Your task to perform on an android device: What is the recent news? Image 0: 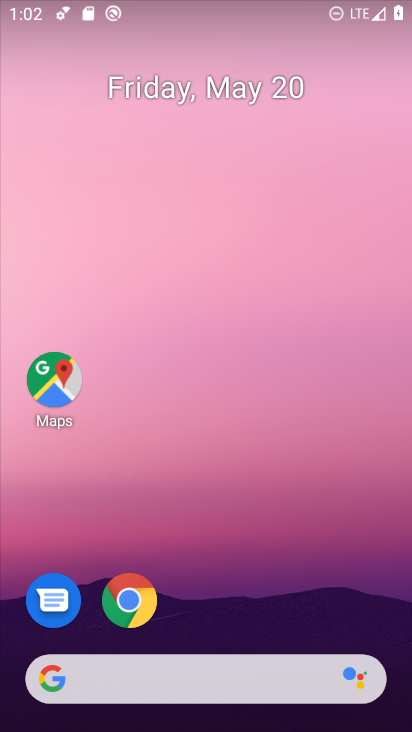
Step 0: drag from (24, 259) to (312, 233)
Your task to perform on an android device: What is the recent news? Image 1: 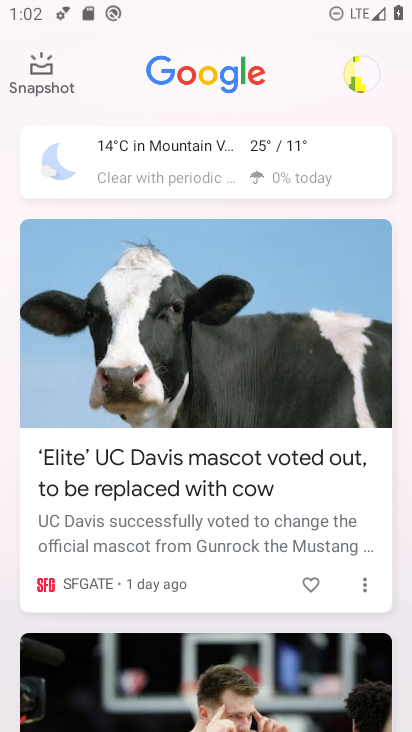
Step 1: task complete